Your task to perform on an android device: Search for "bose soundlink mini" on target, select the first entry, add it to the cart, then select checkout. Image 0: 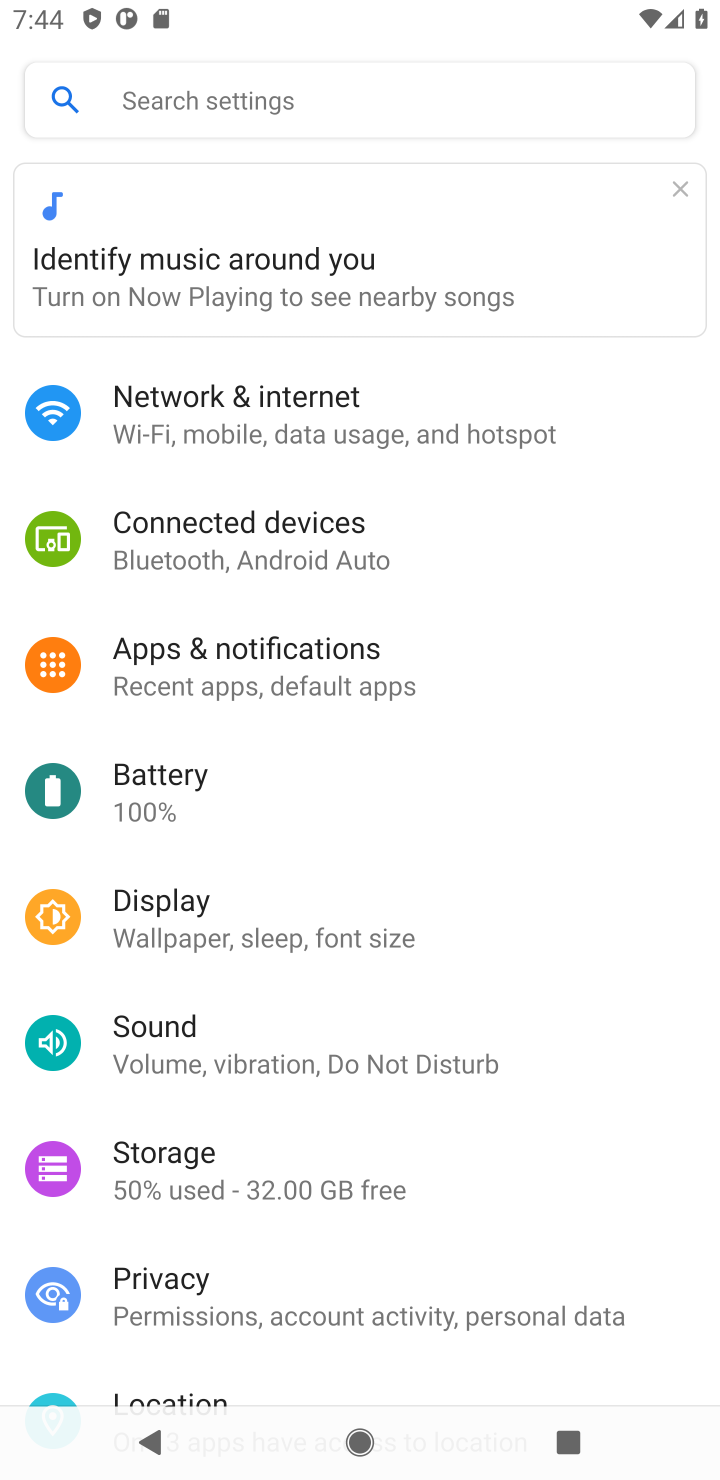
Step 0: task complete